Your task to perform on an android device: Go to internet settings Image 0: 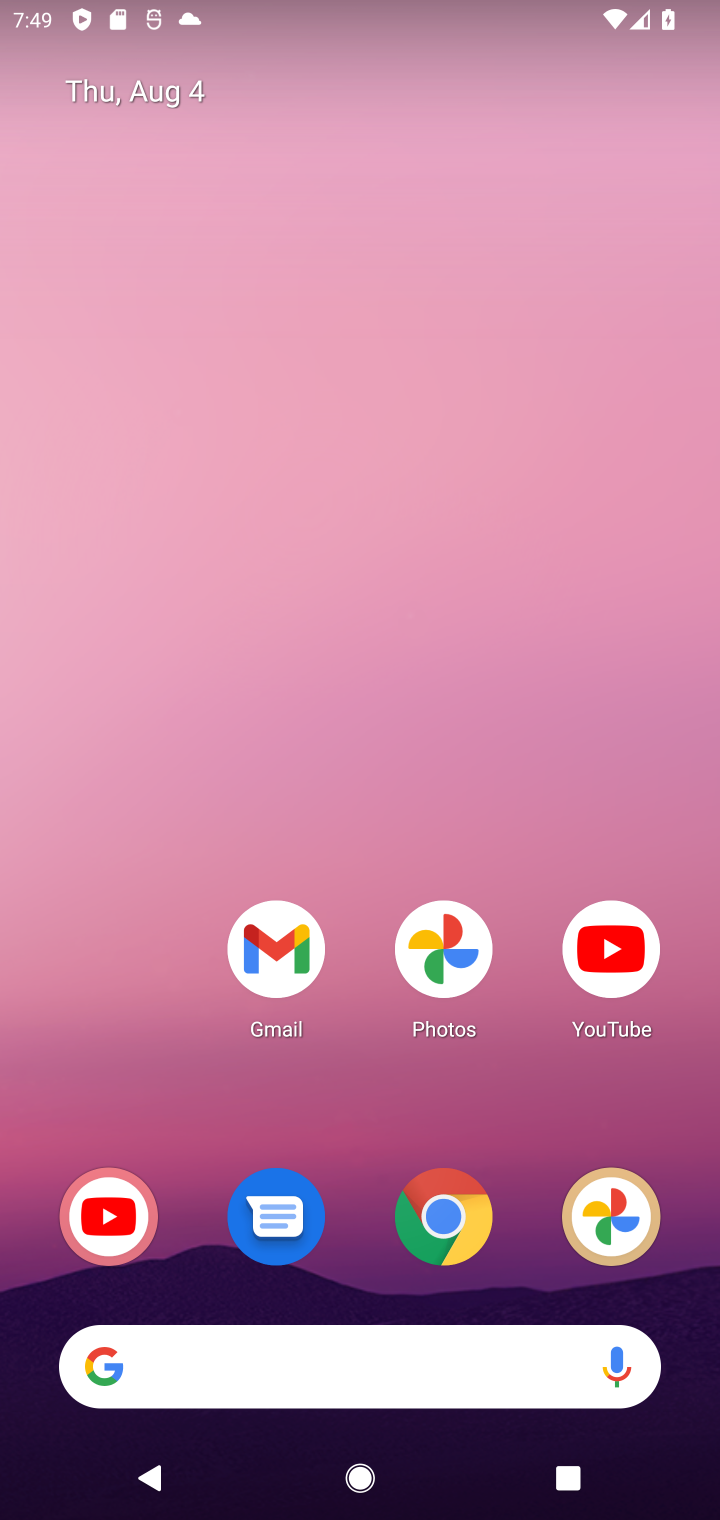
Step 0: drag from (368, 1199) to (349, 66)
Your task to perform on an android device: Go to internet settings Image 1: 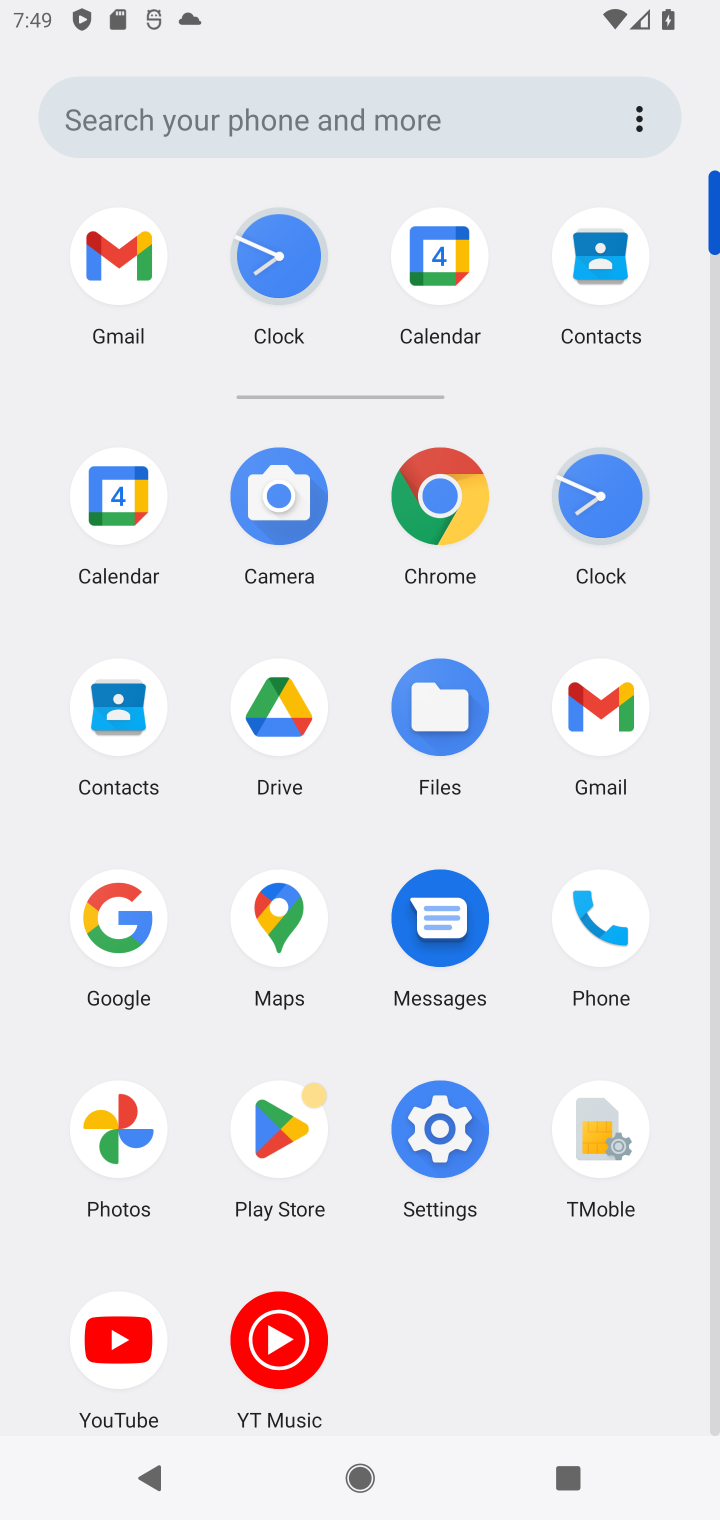
Step 1: click (457, 1126)
Your task to perform on an android device: Go to internet settings Image 2: 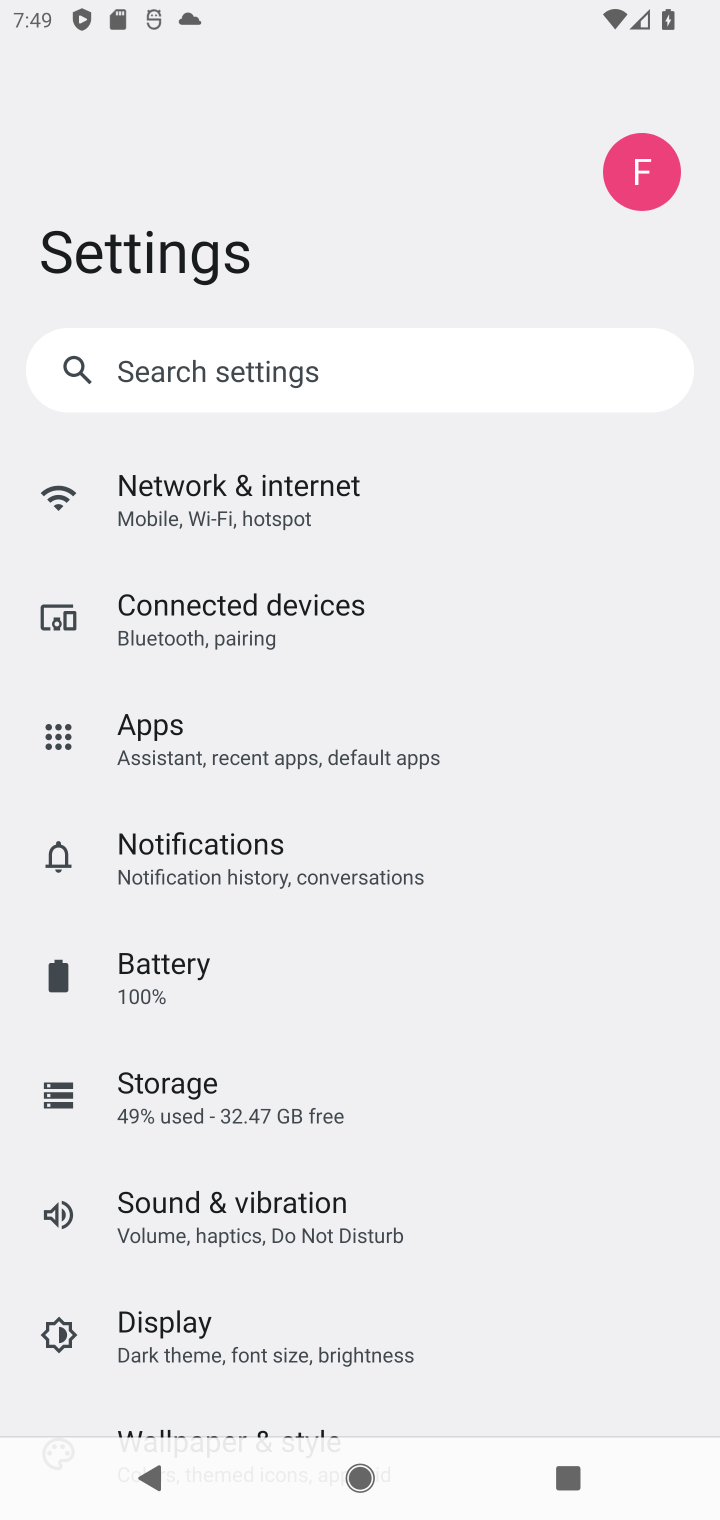
Step 2: click (207, 499)
Your task to perform on an android device: Go to internet settings Image 3: 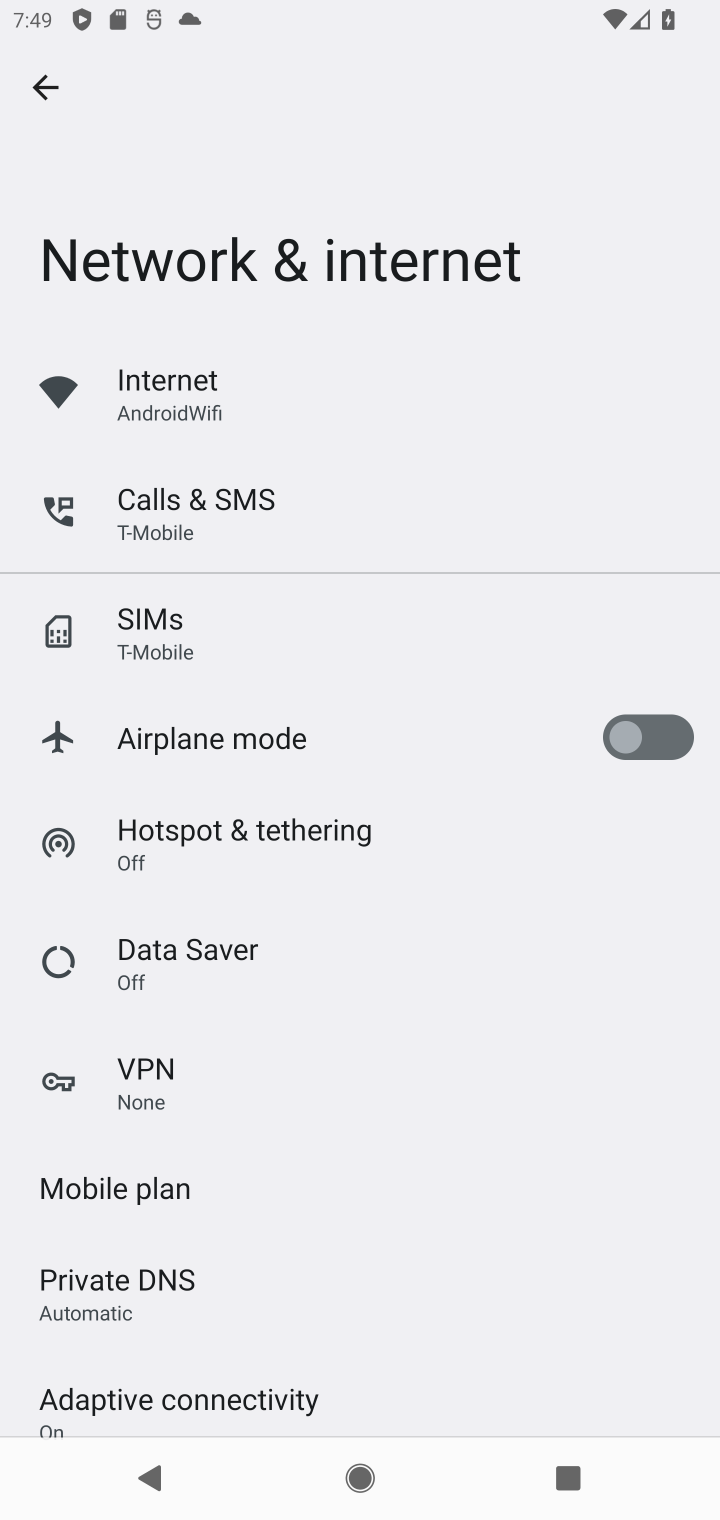
Step 3: click (188, 388)
Your task to perform on an android device: Go to internet settings Image 4: 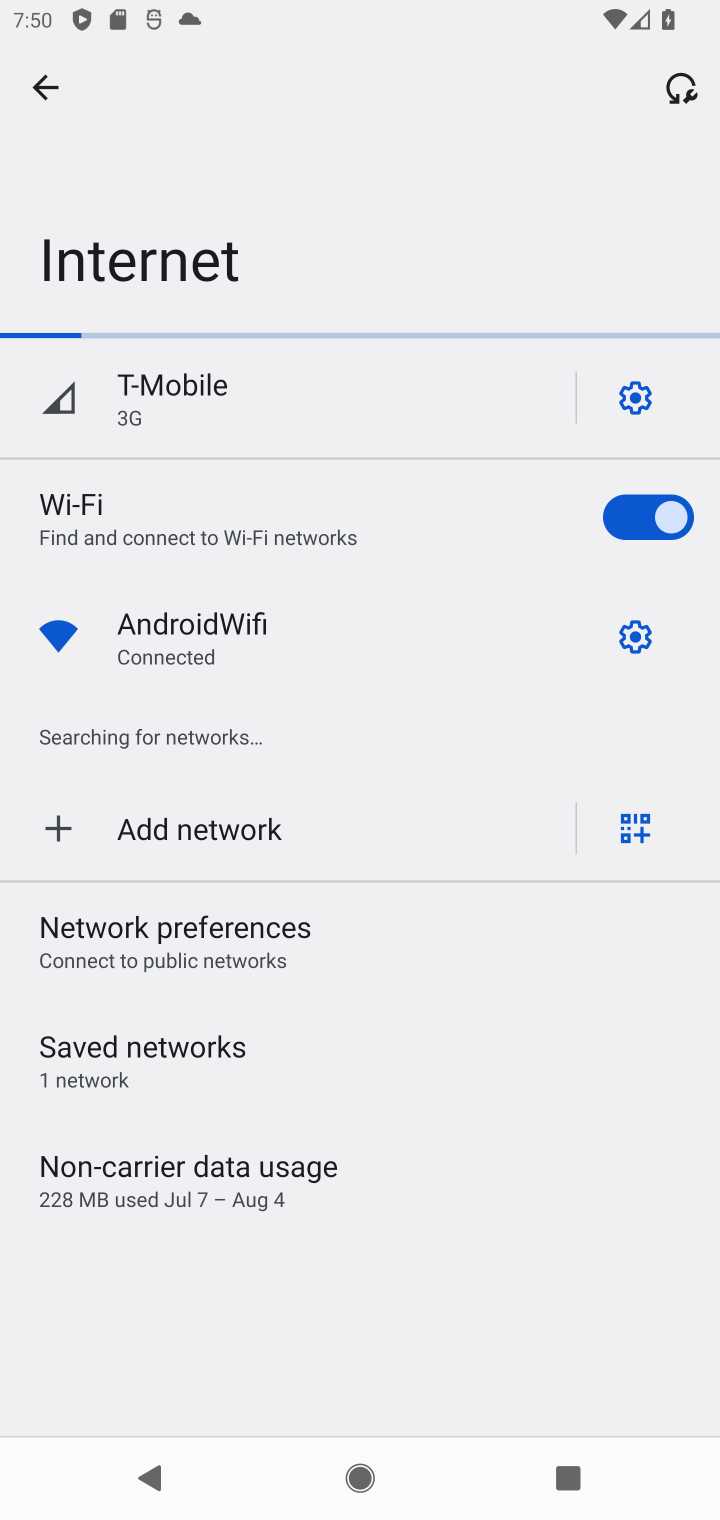
Step 4: task complete